Your task to perform on an android device: Search for "logitech g502" on ebay, select the first entry, and add it to the cart. Image 0: 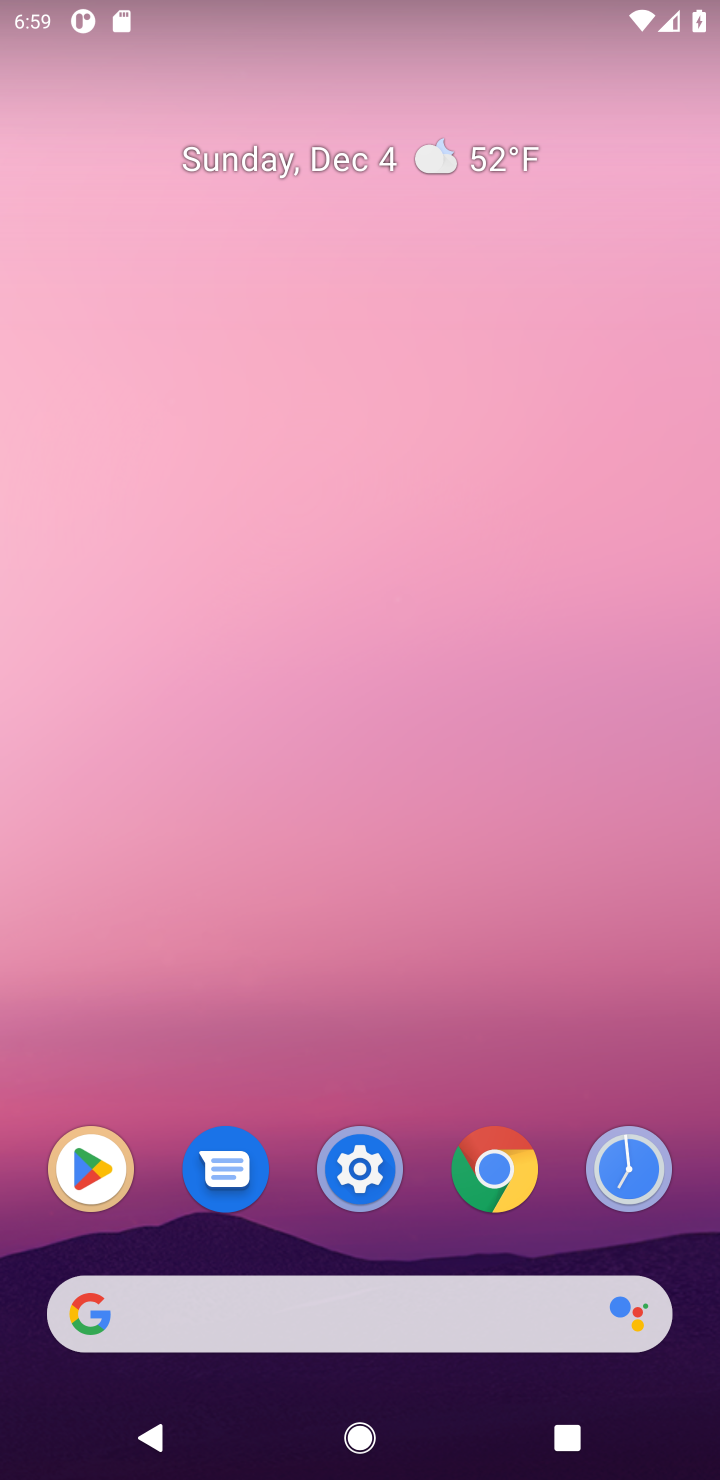
Step 0: click (491, 1185)
Your task to perform on an android device: Search for "logitech g502" on ebay, select the first entry, and add it to the cart. Image 1: 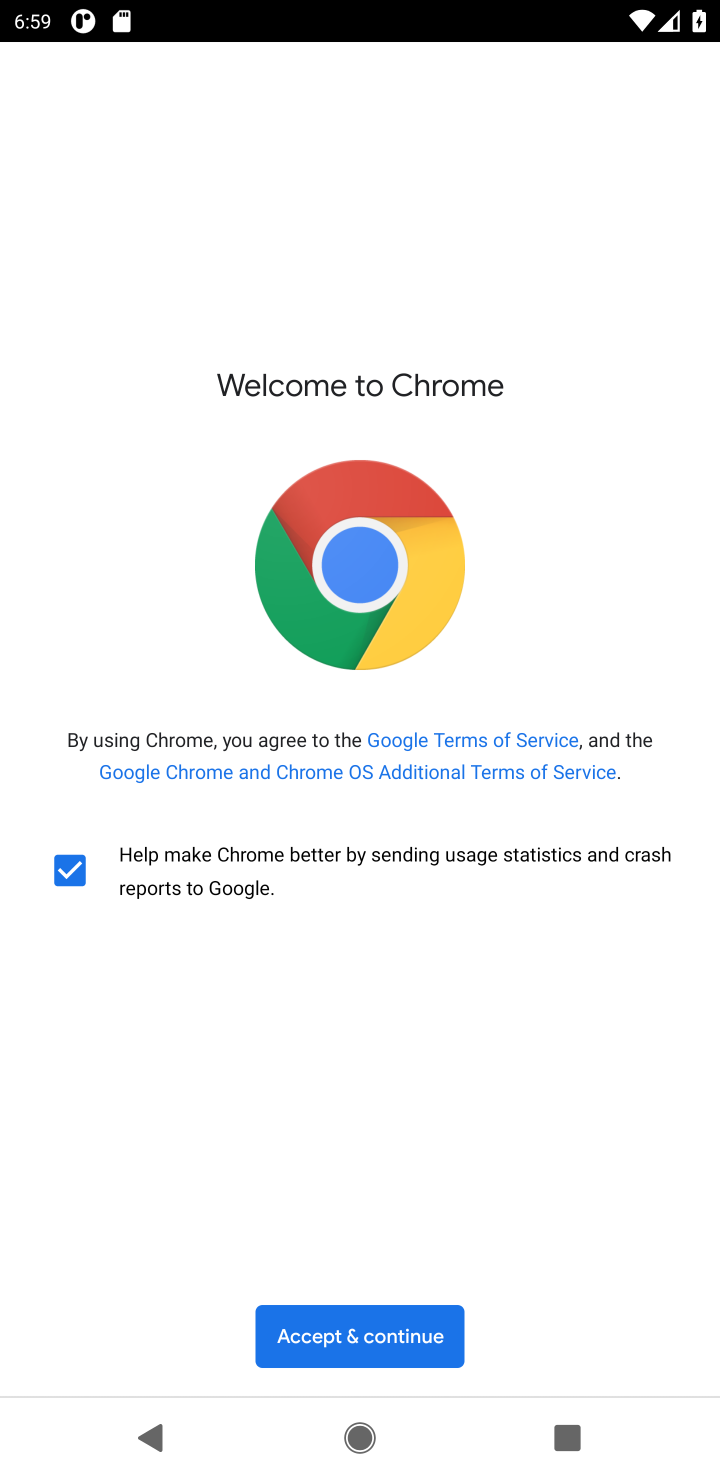
Step 1: click (318, 1332)
Your task to perform on an android device: Search for "logitech g502" on ebay, select the first entry, and add it to the cart. Image 2: 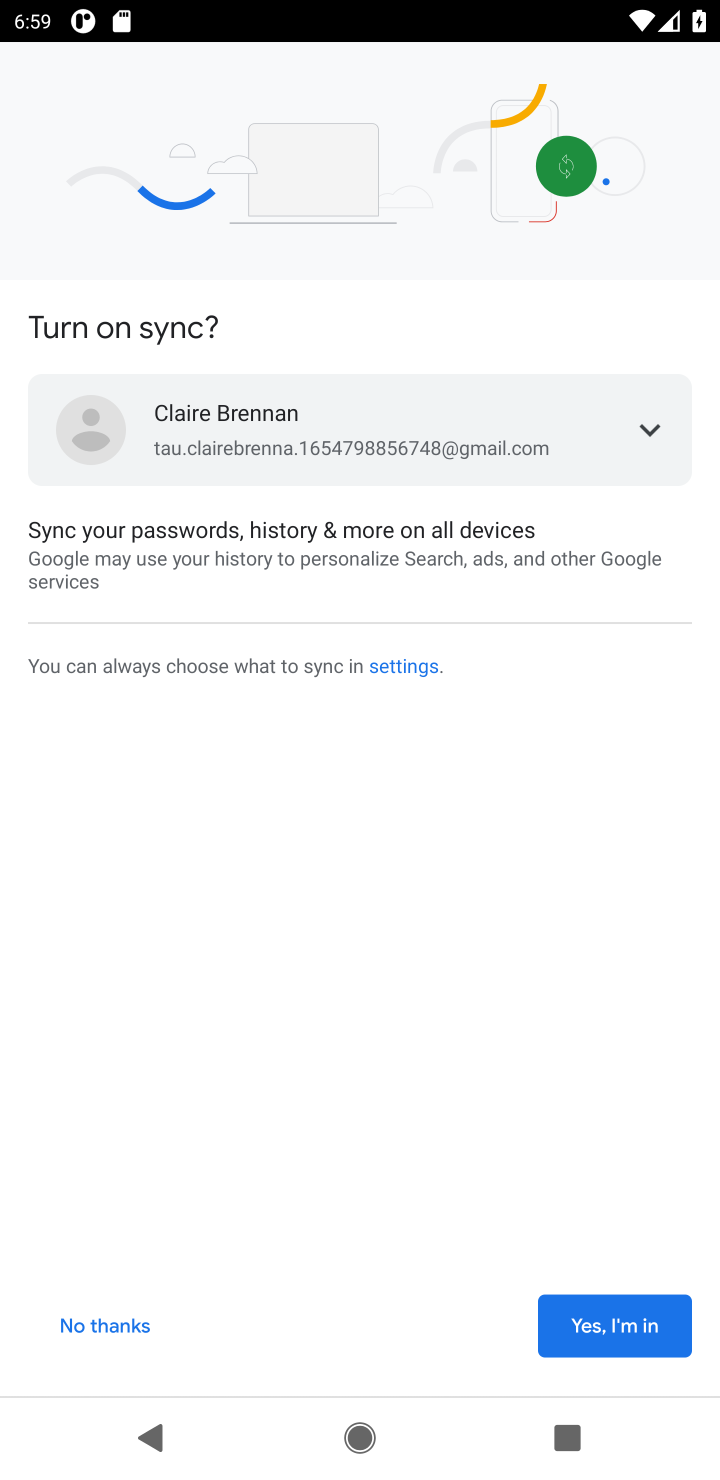
Step 2: click (598, 1315)
Your task to perform on an android device: Search for "logitech g502" on ebay, select the first entry, and add it to the cart. Image 3: 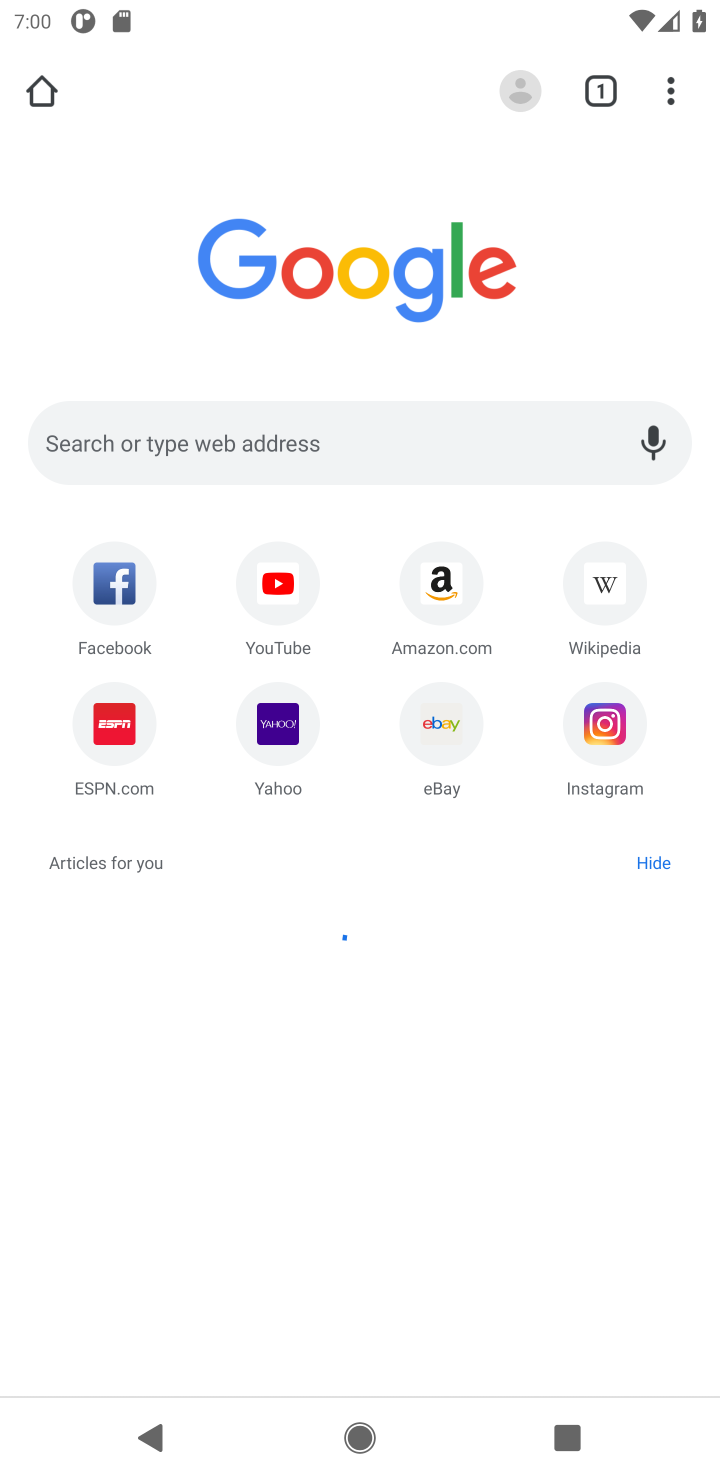
Step 3: click (437, 732)
Your task to perform on an android device: Search for "logitech g502" on ebay, select the first entry, and add it to the cart. Image 4: 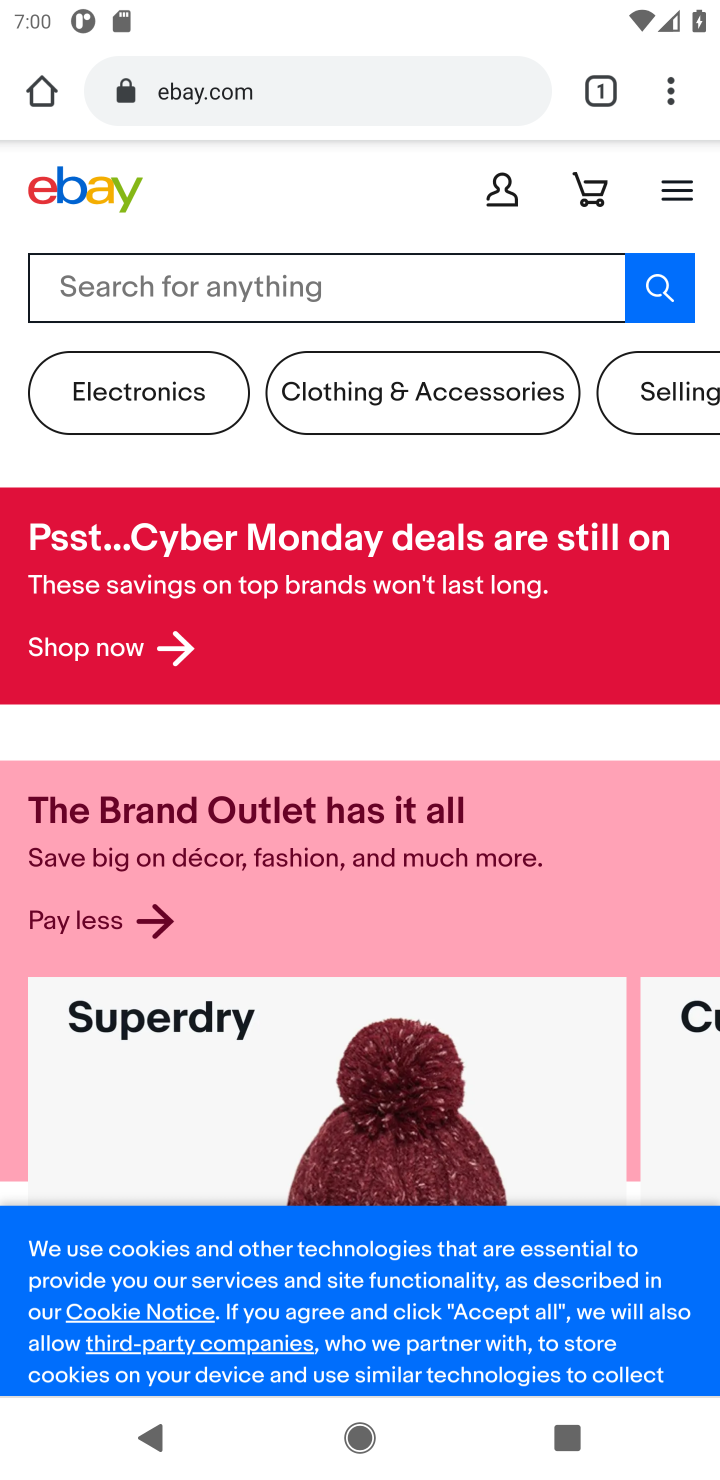
Step 4: click (428, 287)
Your task to perform on an android device: Search for "logitech g502" on ebay, select the first entry, and add it to the cart. Image 5: 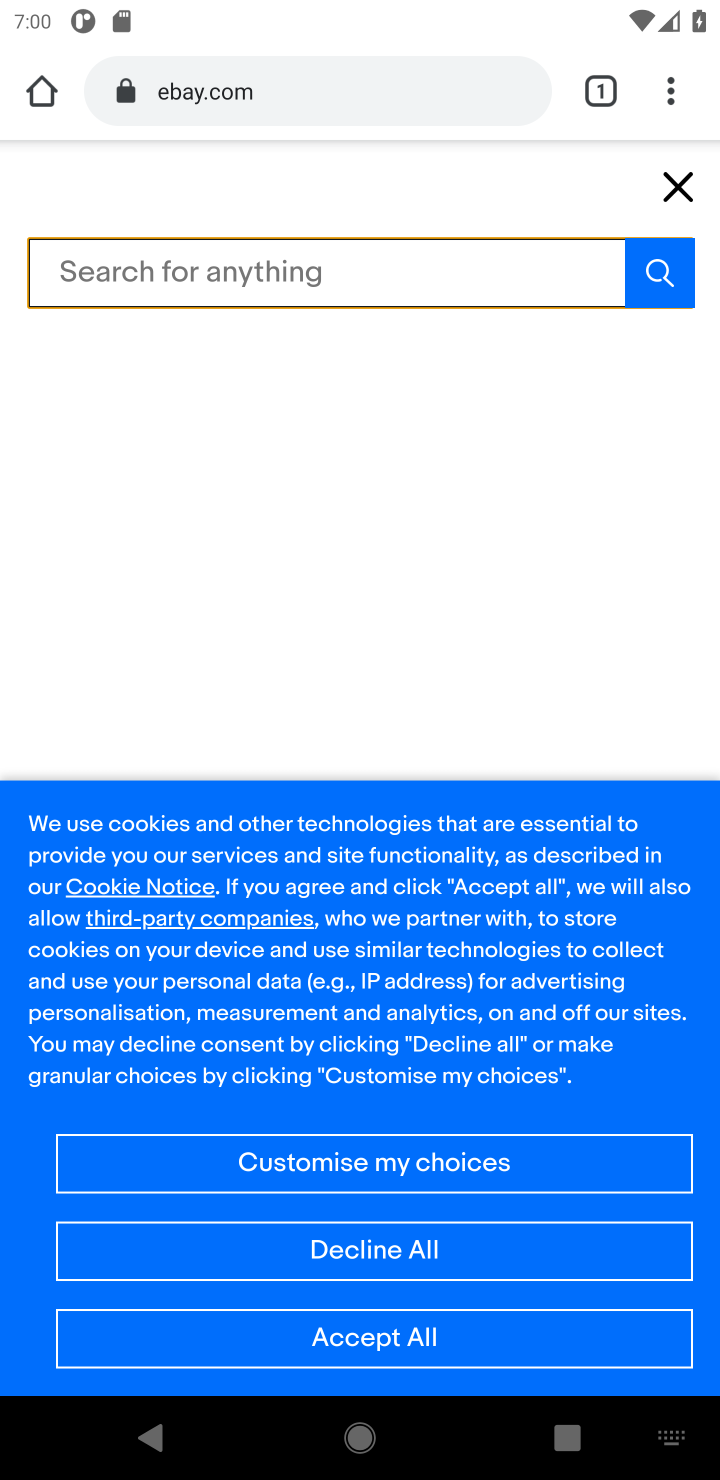
Step 5: click (348, 1349)
Your task to perform on an android device: Search for "logitech g502" on ebay, select the first entry, and add it to the cart. Image 6: 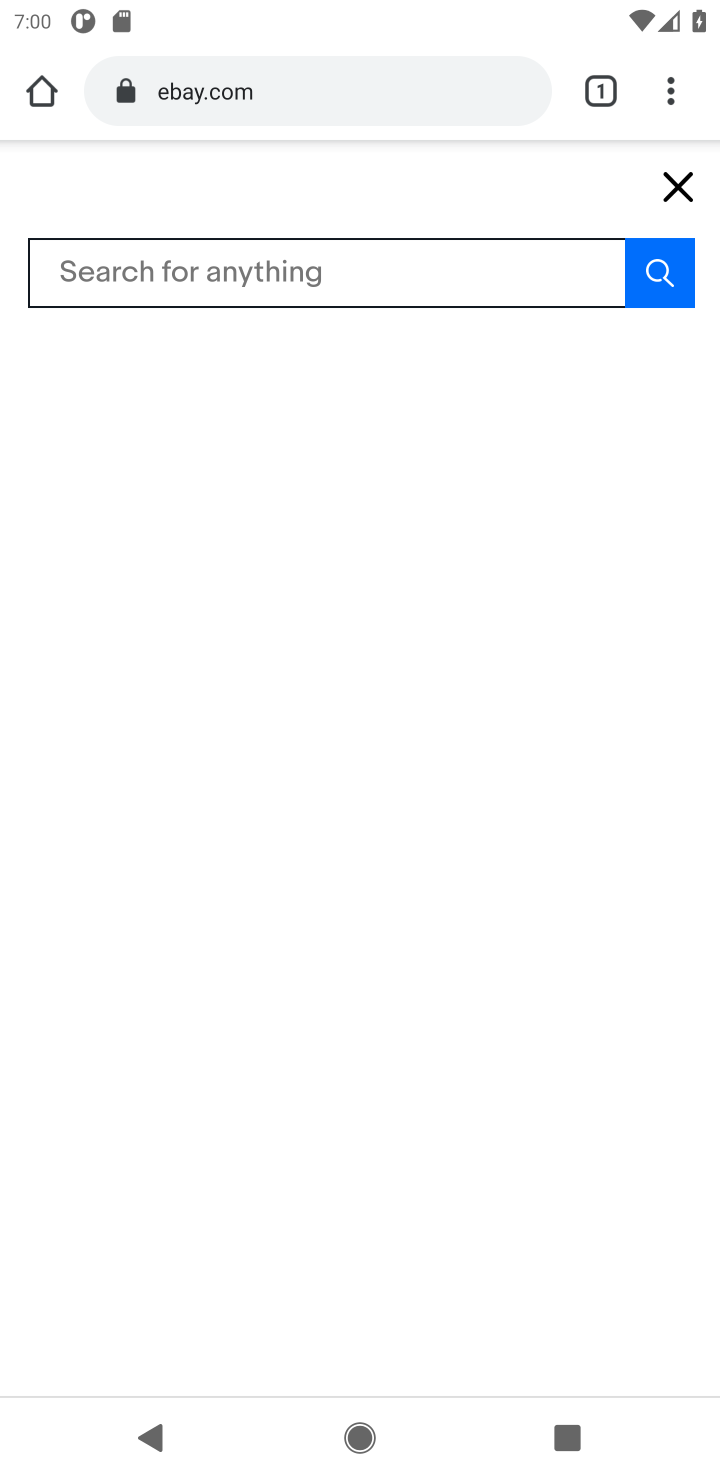
Step 6: click (265, 277)
Your task to perform on an android device: Search for "logitech g502" on ebay, select the first entry, and add it to the cart. Image 7: 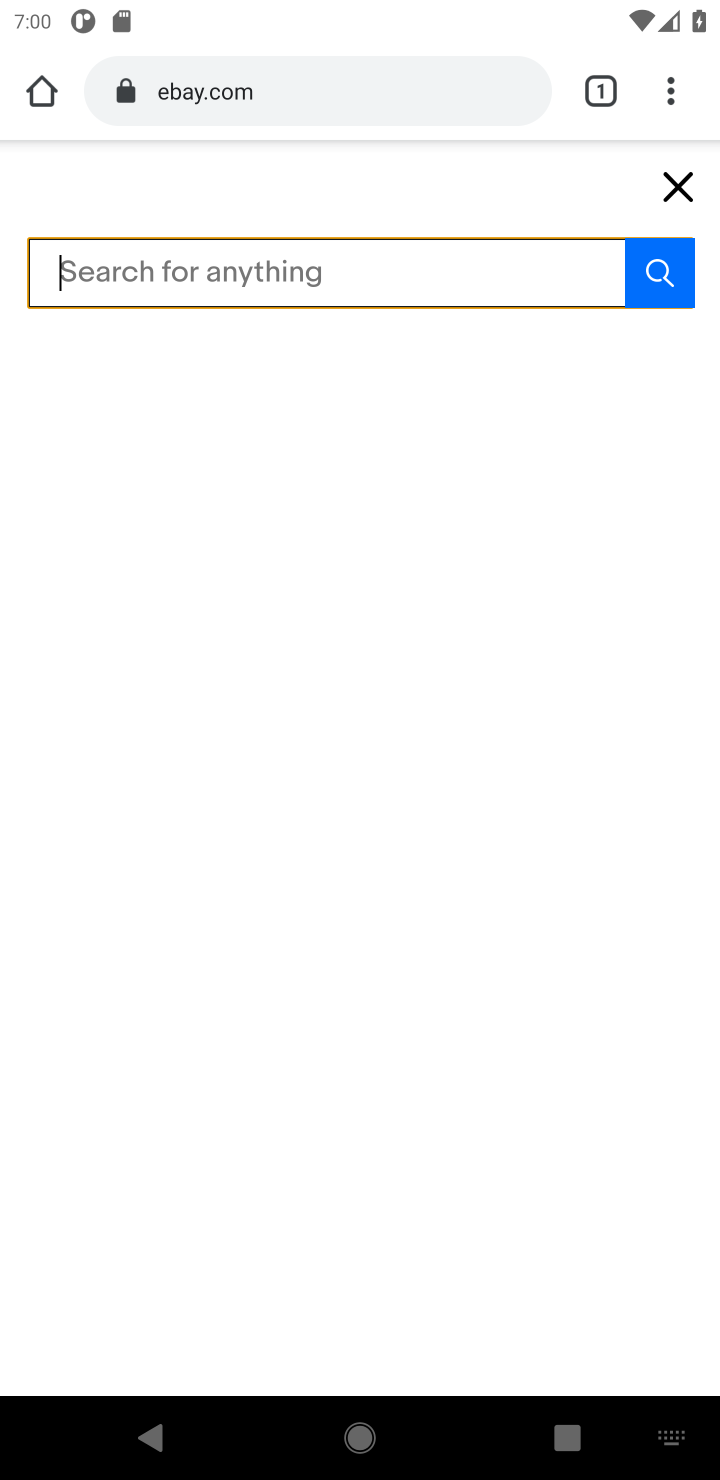
Step 7: type "logitech g502"
Your task to perform on an android device: Search for "logitech g502" on ebay, select the first entry, and add it to the cart. Image 8: 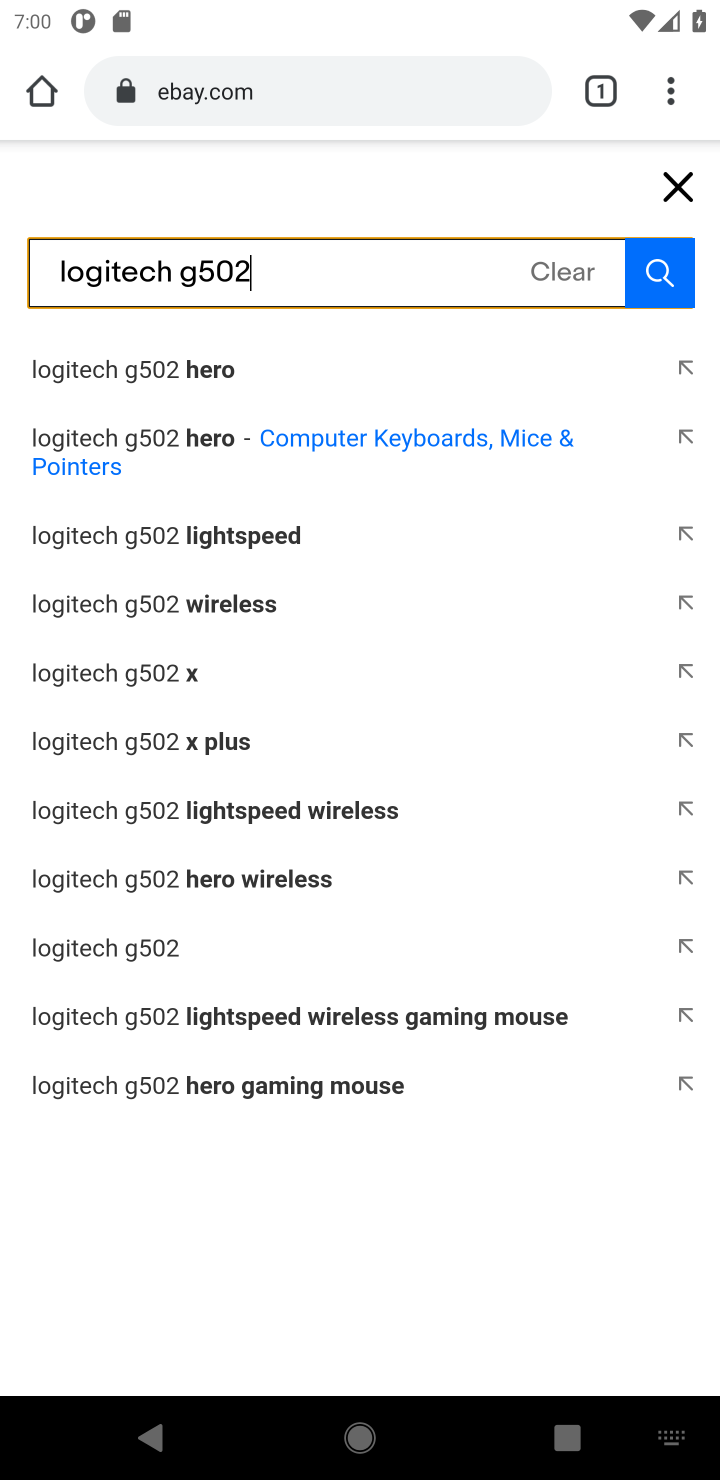
Step 8: click (194, 365)
Your task to perform on an android device: Search for "logitech g502" on ebay, select the first entry, and add it to the cart. Image 9: 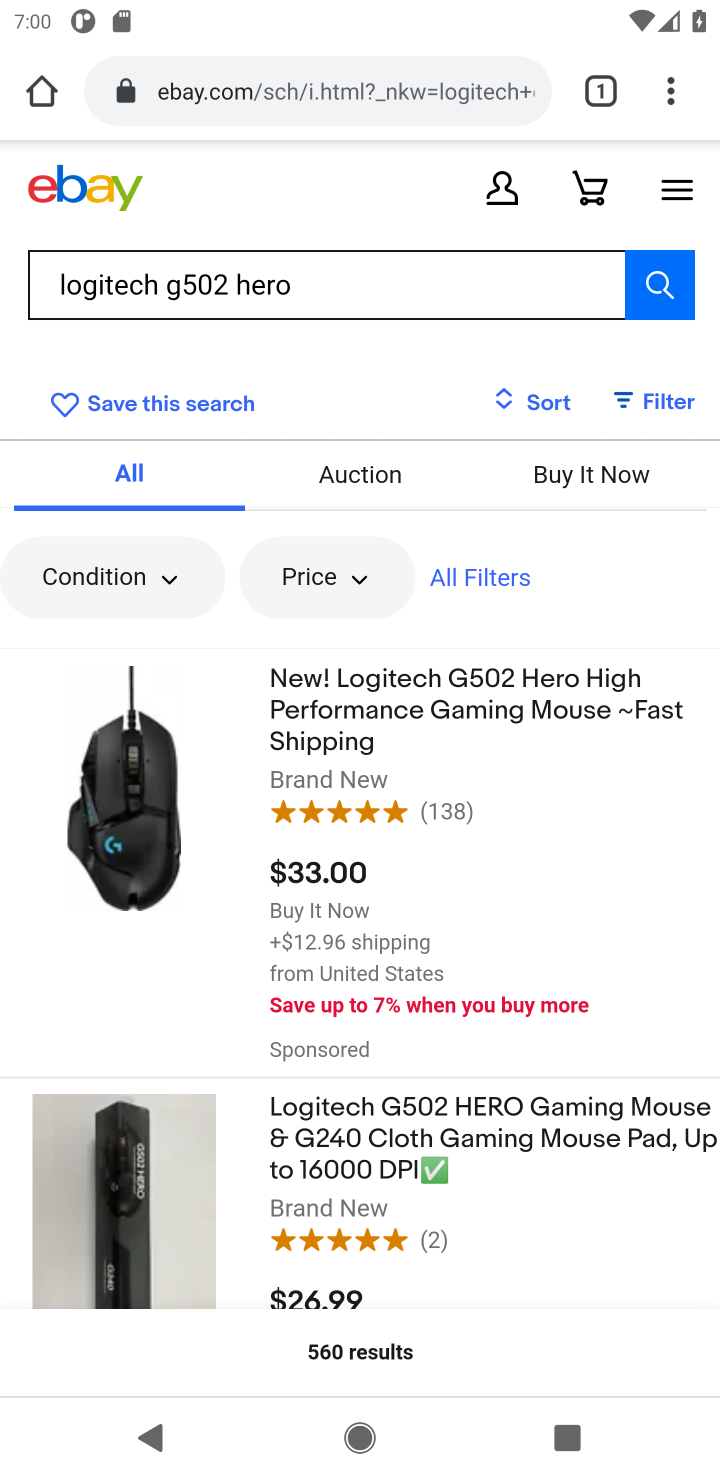
Step 9: click (429, 768)
Your task to perform on an android device: Search for "logitech g502" on ebay, select the first entry, and add it to the cart. Image 10: 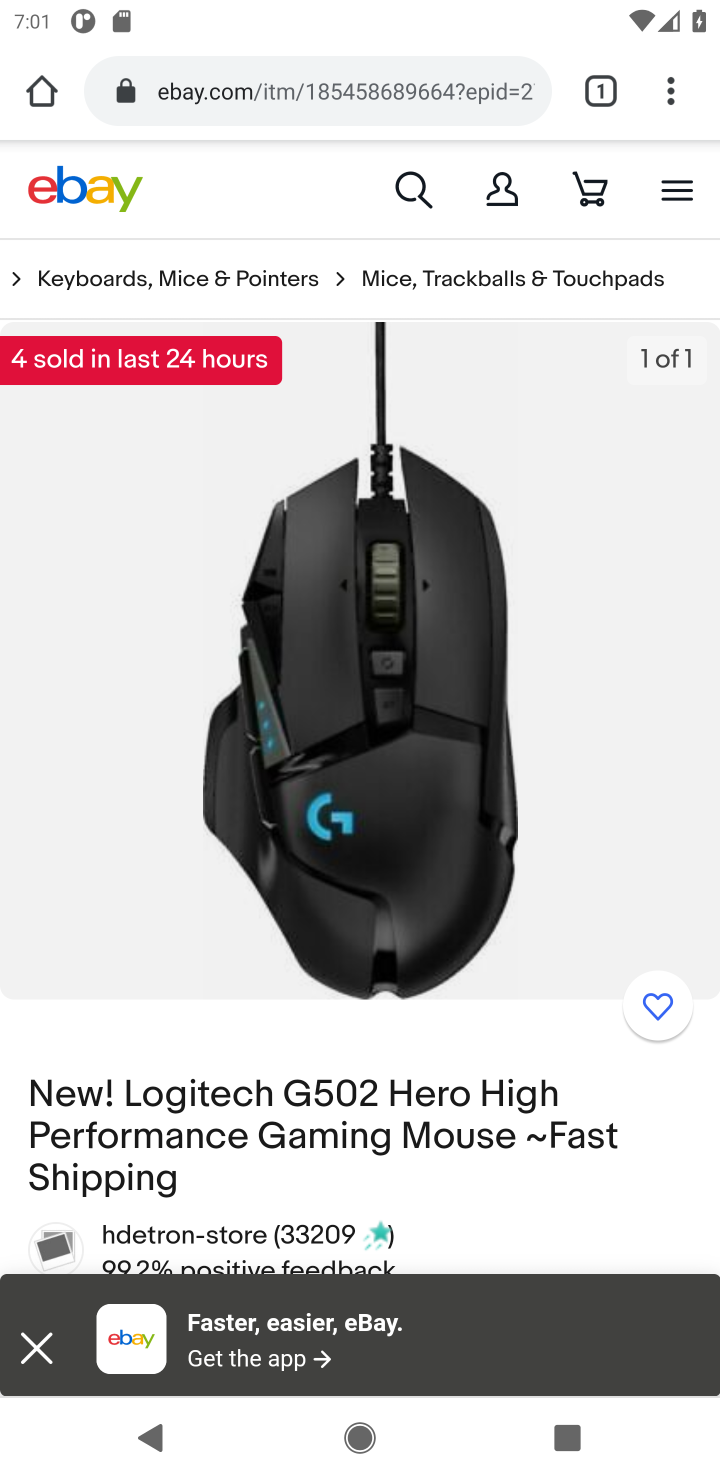
Step 10: click (43, 1349)
Your task to perform on an android device: Search for "logitech g502" on ebay, select the first entry, and add it to the cart. Image 11: 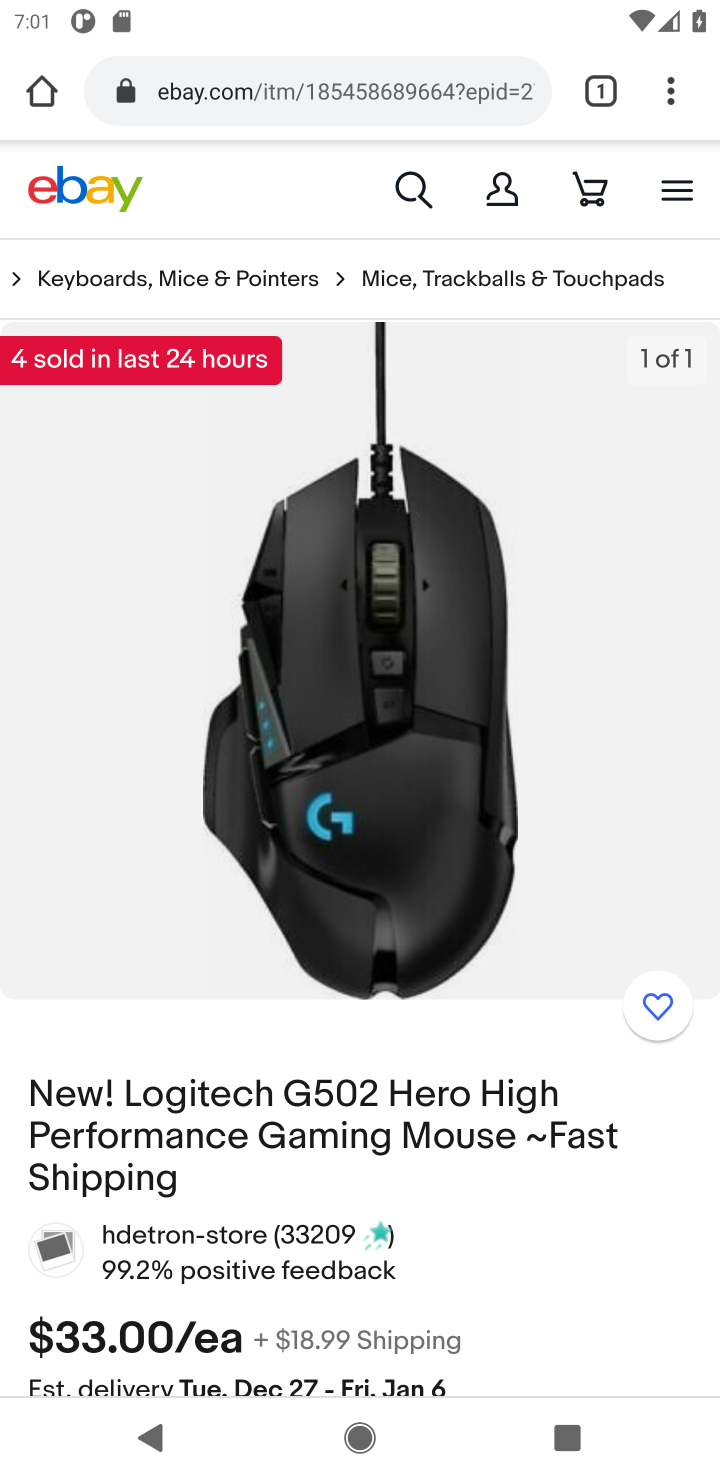
Step 11: drag from (471, 1339) to (483, 563)
Your task to perform on an android device: Search for "logitech g502" on ebay, select the first entry, and add it to the cart. Image 12: 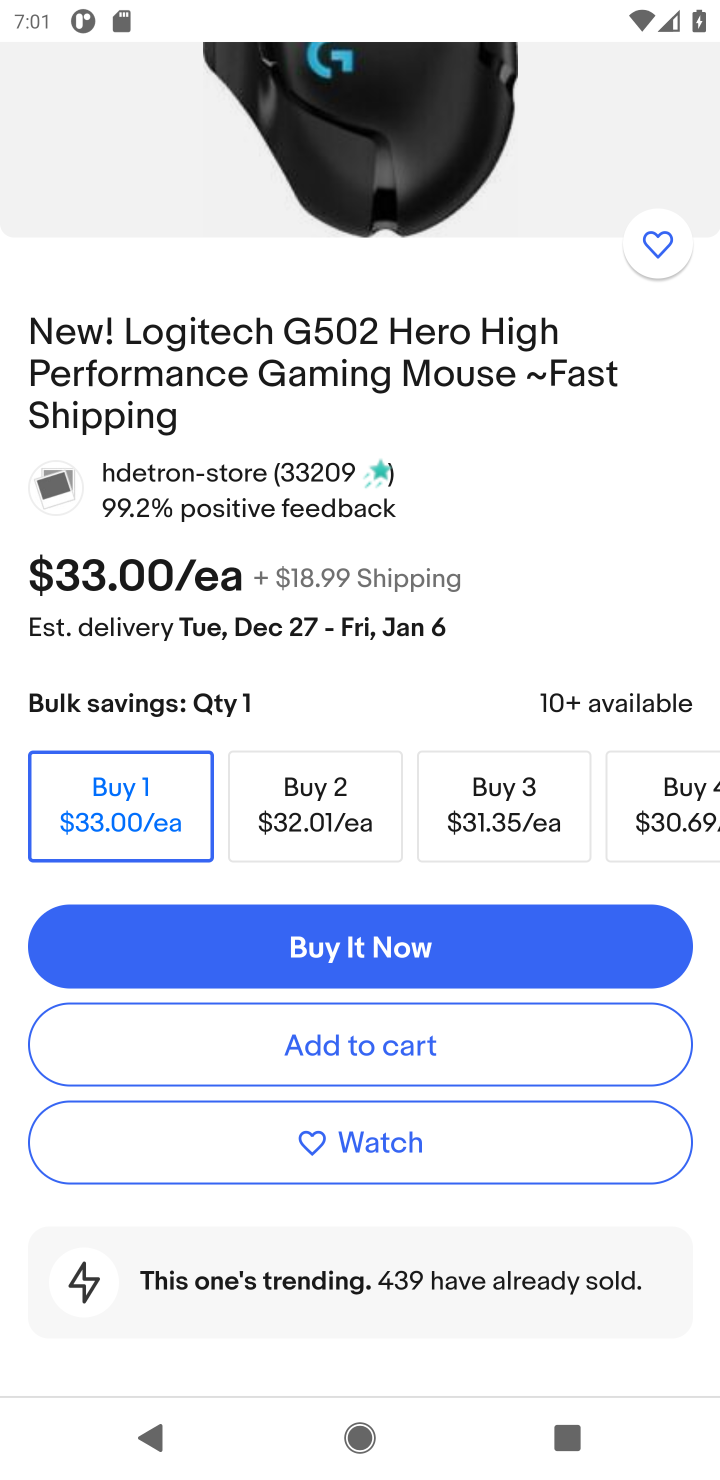
Step 12: click (396, 1041)
Your task to perform on an android device: Search for "logitech g502" on ebay, select the first entry, and add it to the cart. Image 13: 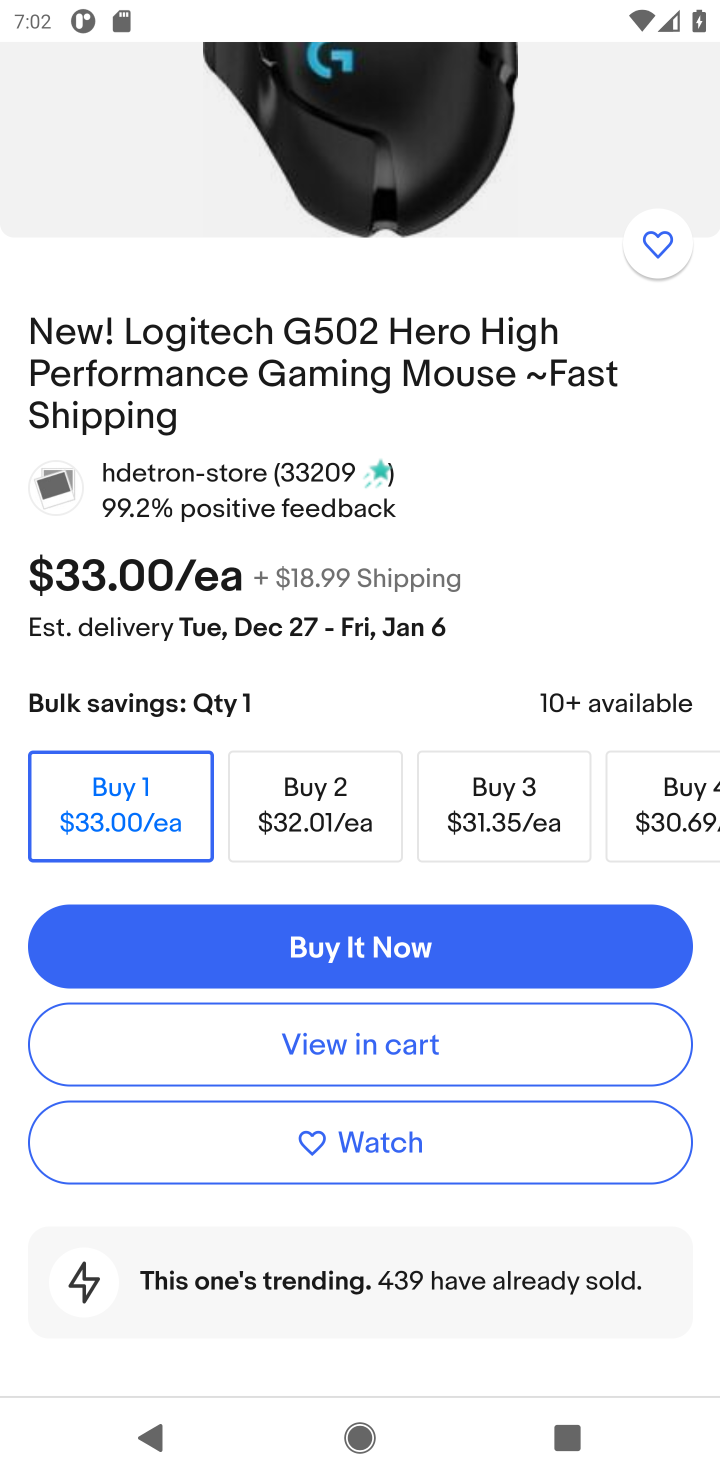
Step 13: task complete